Your task to perform on an android device: turn on priority inbox in the gmail app Image 0: 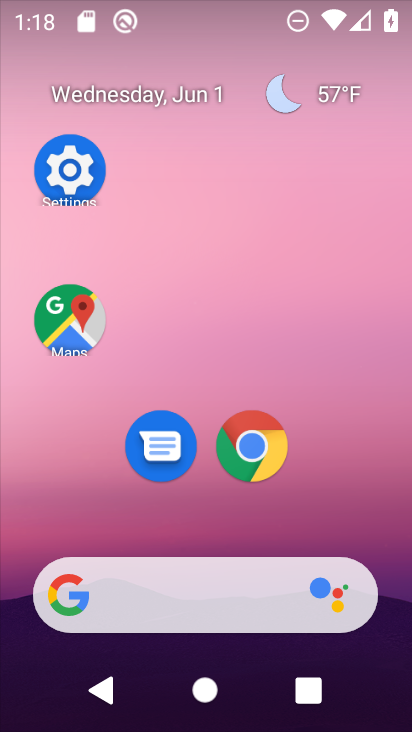
Step 0: drag from (328, 519) to (324, 77)
Your task to perform on an android device: turn on priority inbox in the gmail app Image 1: 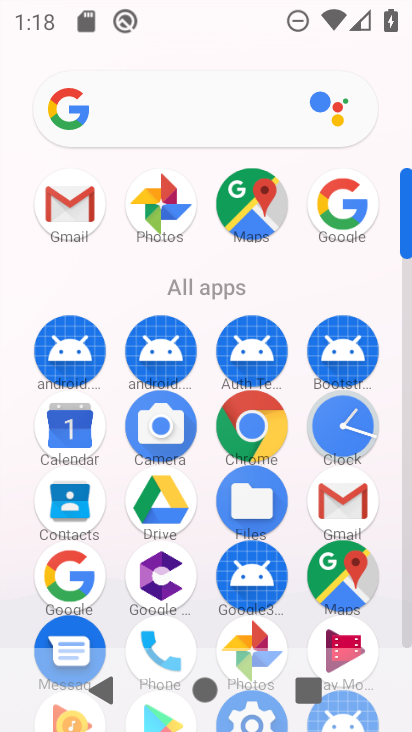
Step 1: drag from (336, 504) to (148, 259)
Your task to perform on an android device: turn on priority inbox in the gmail app Image 2: 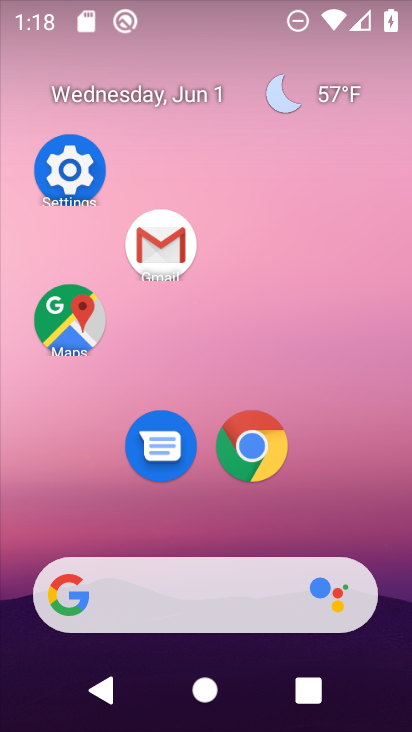
Step 2: click (154, 251)
Your task to perform on an android device: turn on priority inbox in the gmail app Image 3: 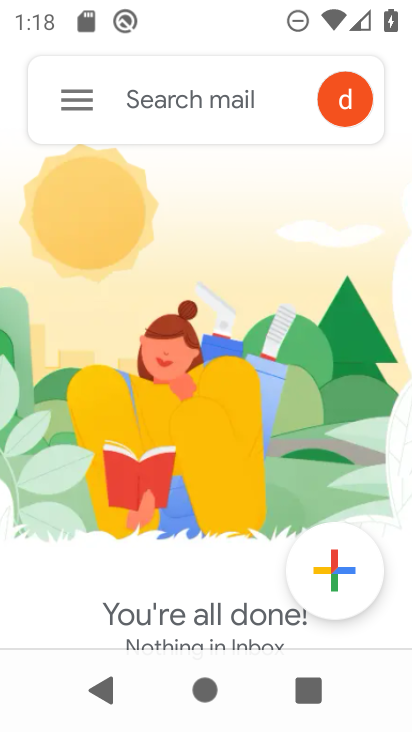
Step 3: click (88, 89)
Your task to perform on an android device: turn on priority inbox in the gmail app Image 4: 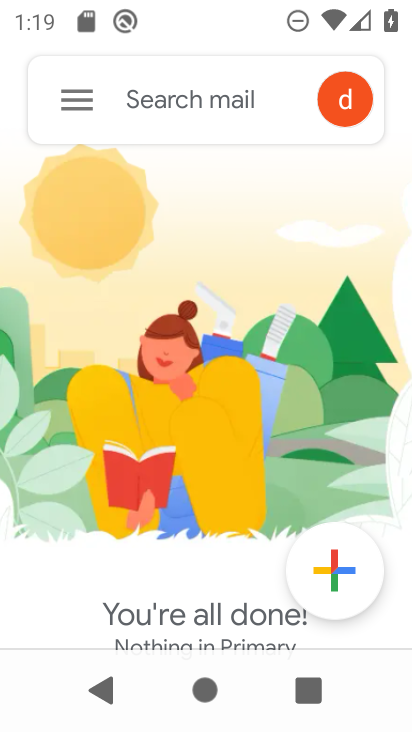
Step 4: click (86, 120)
Your task to perform on an android device: turn on priority inbox in the gmail app Image 5: 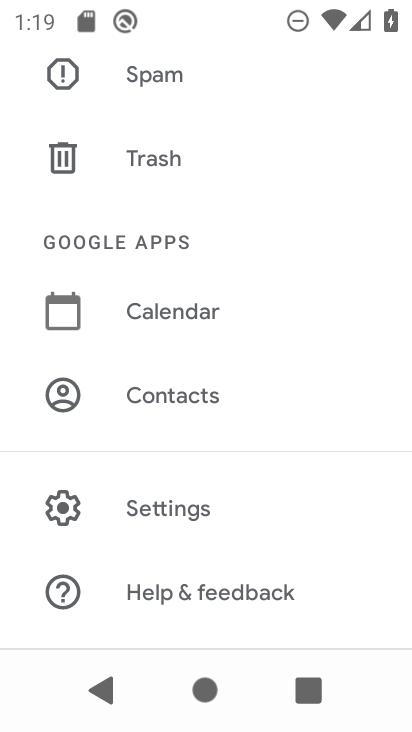
Step 5: click (251, 508)
Your task to perform on an android device: turn on priority inbox in the gmail app Image 6: 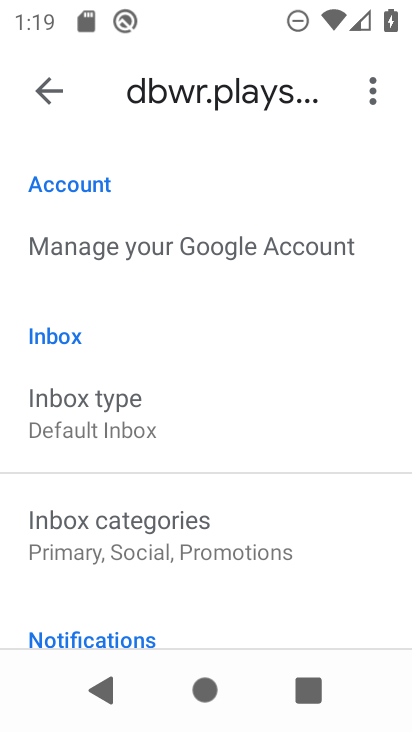
Step 6: click (178, 411)
Your task to perform on an android device: turn on priority inbox in the gmail app Image 7: 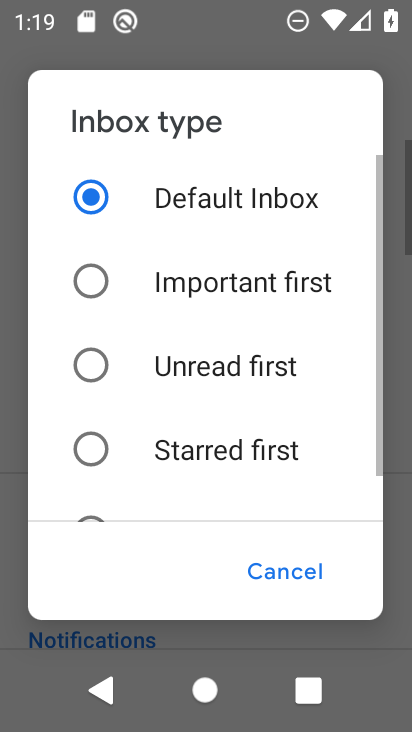
Step 7: drag from (190, 402) to (179, 149)
Your task to perform on an android device: turn on priority inbox in the gmail app Image 8: 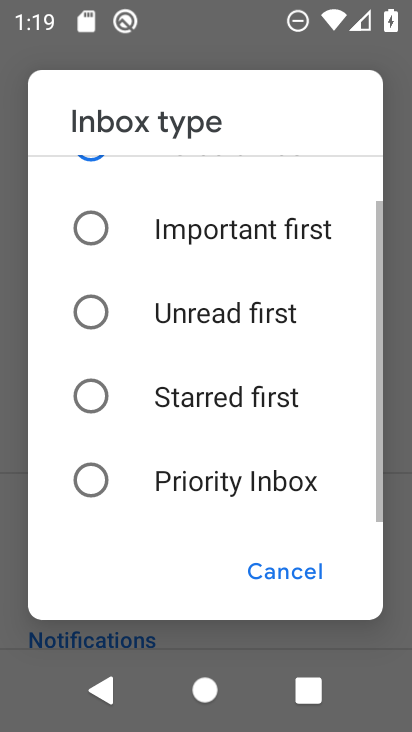
Step 8: click (215, 476)
Your task to perform on an android device: turn on priority inbox in the gmail app Image 9: 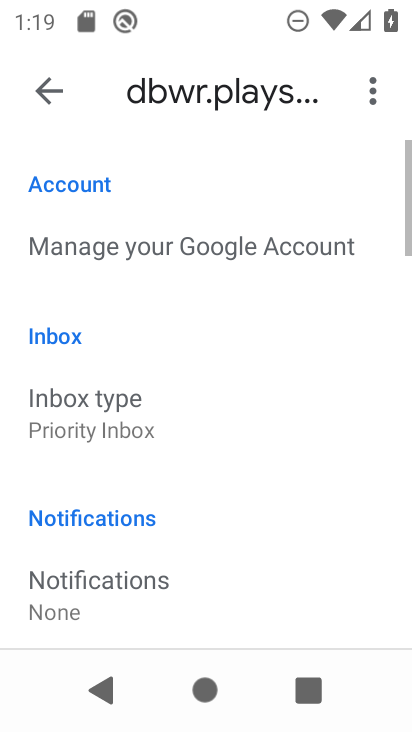
Step 9: task complete